Your task to perform on an android device: uninstall "Yahoo Mail" Image 0: 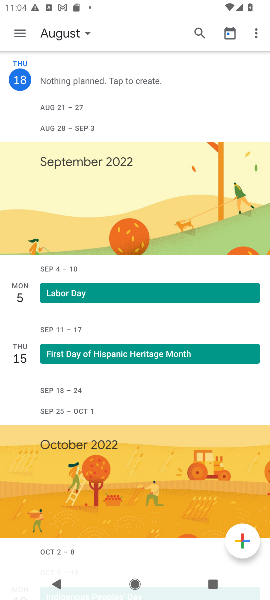
Step 0: press home button
Your task to perform on an android device: uninstall "Yahoo Mail" Image 1: 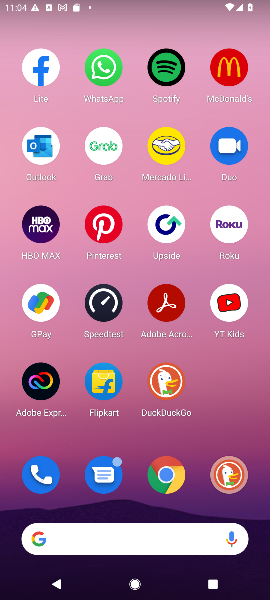
Step 1: drag from (137, 484) to (240, 2)
Your task to perform on an android device: uninstall "Yahoo Mail" Image 2: 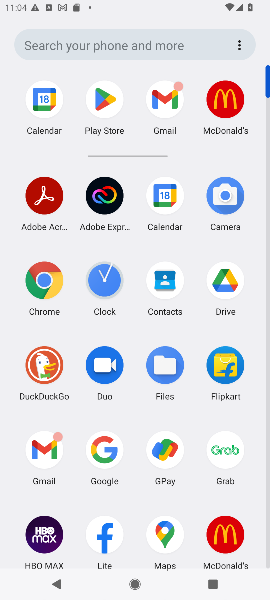
Step 2: click (95, 101)
Your task to perform on an android device: uninstall "Yahoo Mail" Image 3: 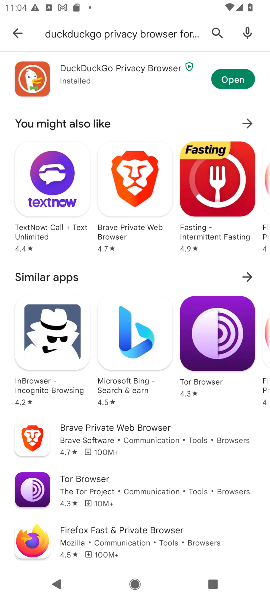
Step 3: click (24, 30)
Your task to perform on an android device: uninstall "Yahoo Mail" Image 4: 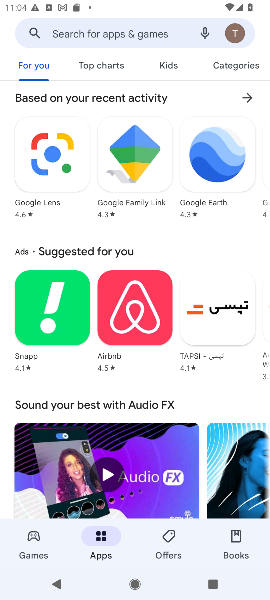
Step 4: click (108, 27)
Your task to perform on an android device: uninstall "Yahoo Mail" Image 5: 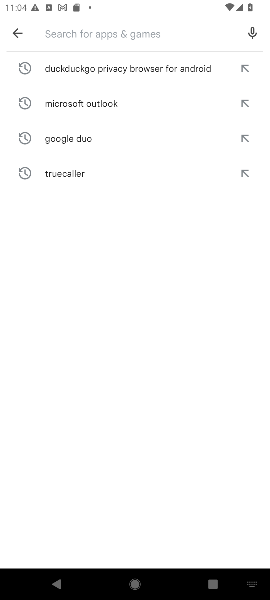
Step 5: type "Yahoo Mail"
Your task to perform on an android device: uninstall "Yahoo Mail" Image 6: 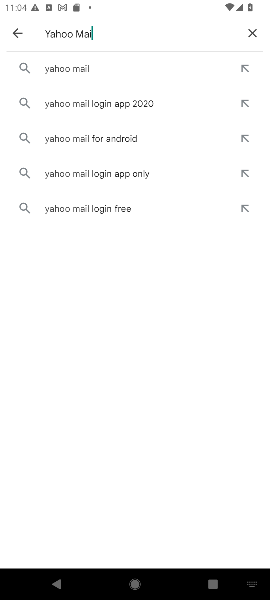
Step 6: type ""
Your task to perform on an android device: uninstall "Yahoo Mail" Image 7: 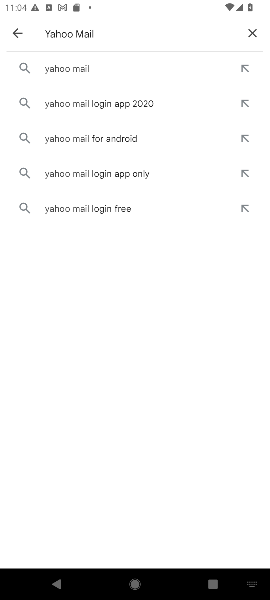
Step 7: click (80, 69)
Your task to perform on an android device: uninstall "Yahoo Mail" Image 8: 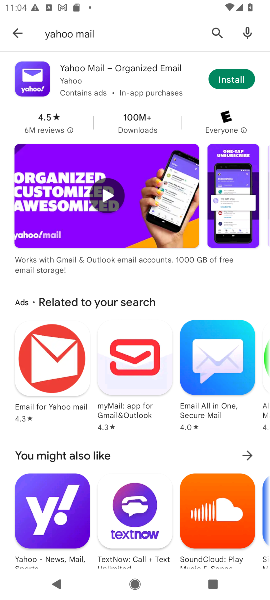
Step 8: task complete